Your task to perform on an android device: Open location settings Image 0: 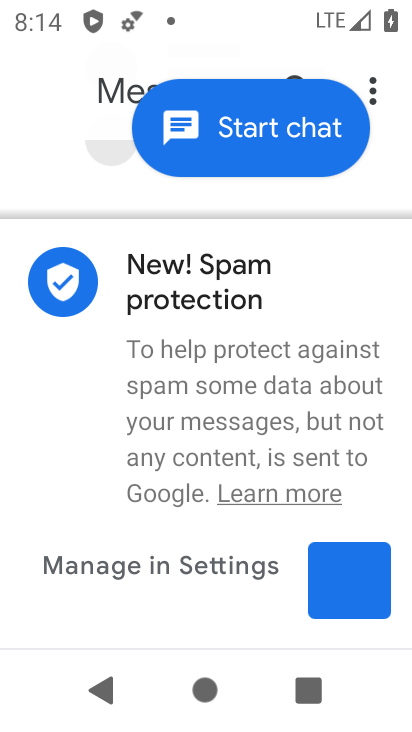
Step 0: press home button
Your task to perform on an android device: Open location settings Image 1: 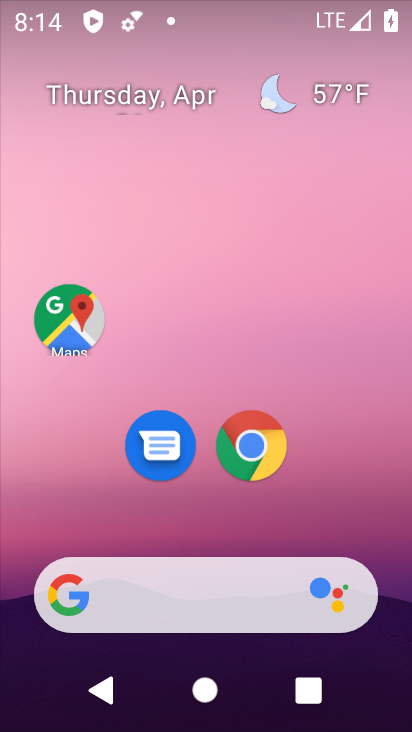
Step 1: drag from (365, 532) to (301, 49)
Your task to perform on an android device: Open location settings Image 2: 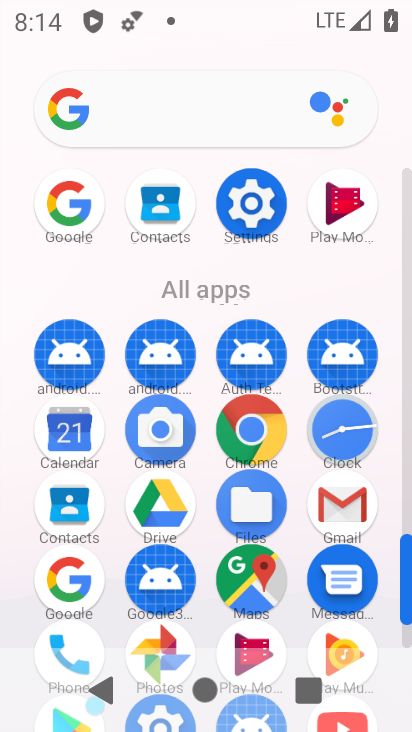
Step 2: click (250, 193)
Your task to perform on an android device: Open location settings Image 3: 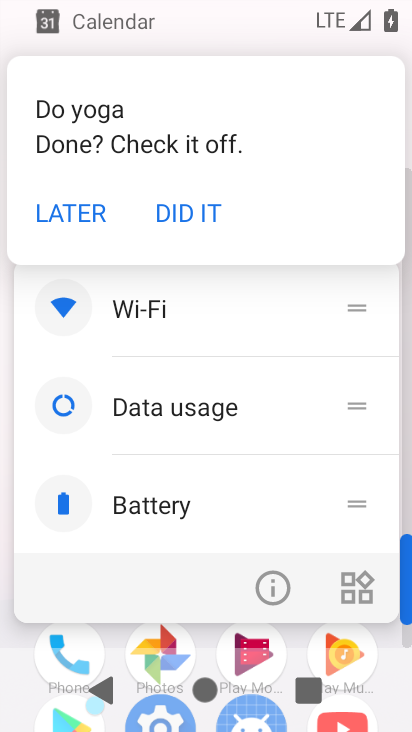
Step 3: click (67, 220)
Your task to perform on an android device: Open location settings Image 4: 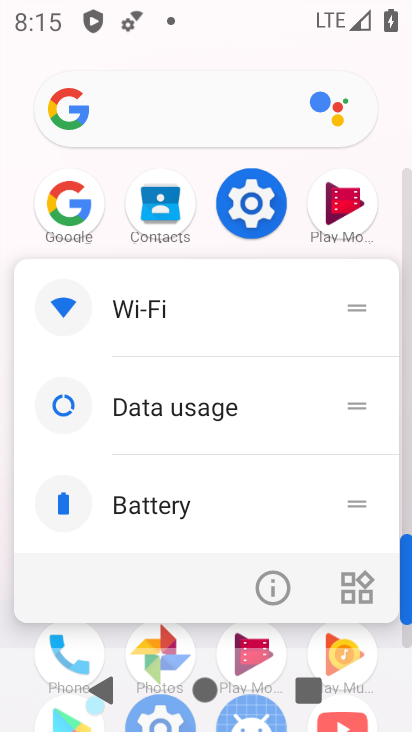
Step 4: click (265, 198)
Your task to perform on an android device: Open location settings Image 5: 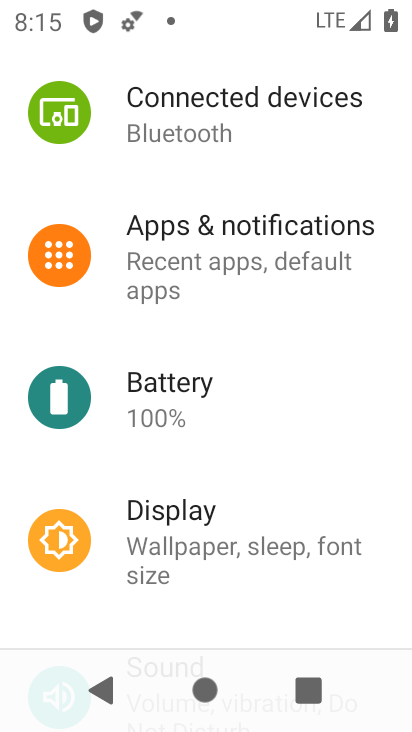
Step 5: drag from (273, 548) to (199, 134)
Your task to perform on an android device: Open location settings Image 6: 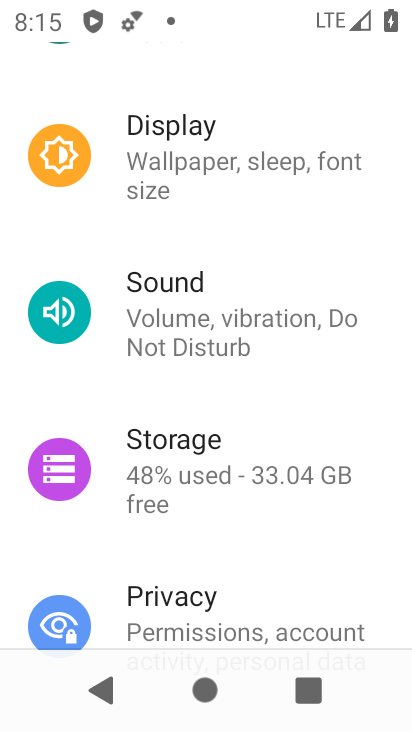
Step 6: drag from (267, 489) to (225, 116)
Your task to perform on an android device: Open location settings Image 7: 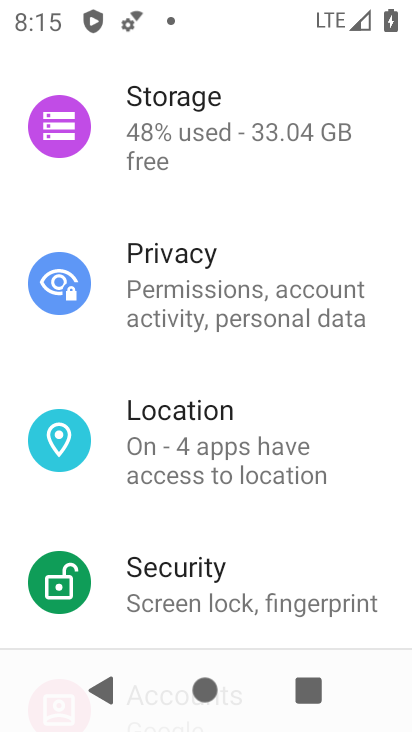
Step 7: click (168, 425)
Your task to perform on an android device: Open location settings Image 8: 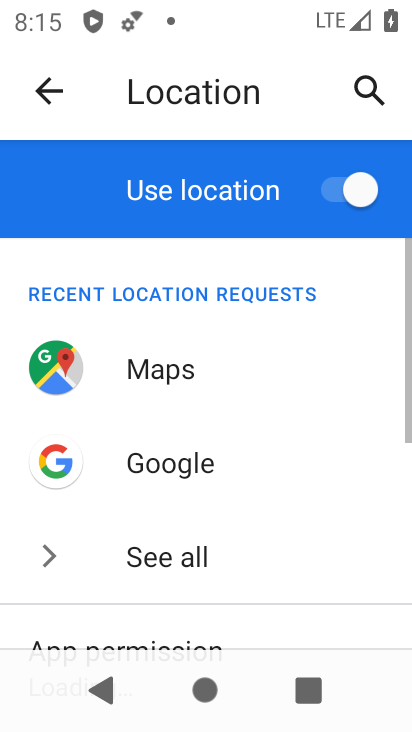
Step 8: task complete